Your task to perform on an android device: Go to Google maps Image 0: 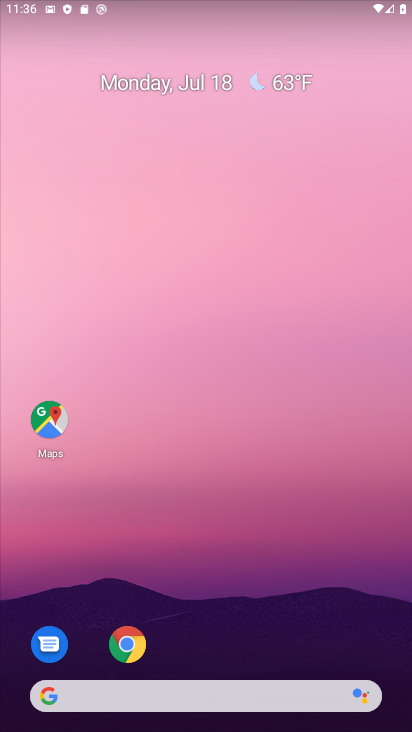
Step 0: click (47, 420)
Your task to perform on an android device: Go to Google maps Image 1: 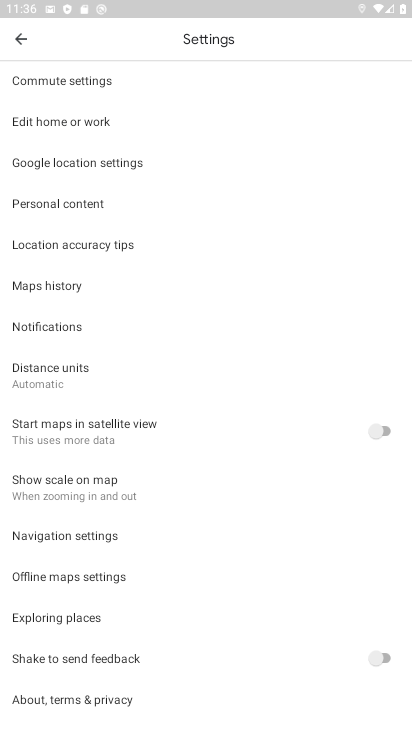
Step 1: click (18, 34)
Your task to perform on an android device: Go to Google maps Image 2: 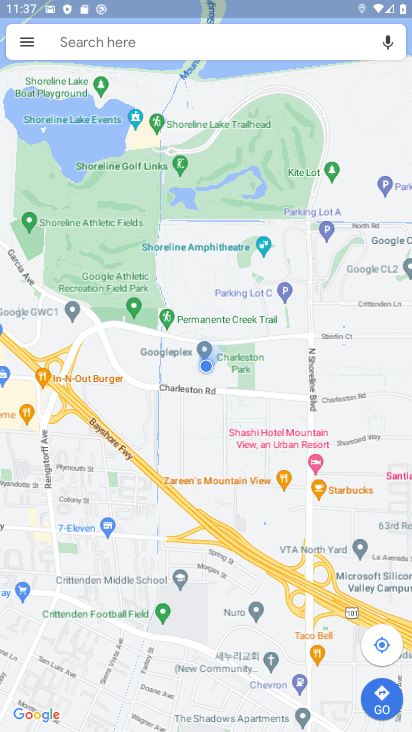
Step 2: task complete